Your task to perform on an android device: see tabs open on other devices in the chrome app Image 0: 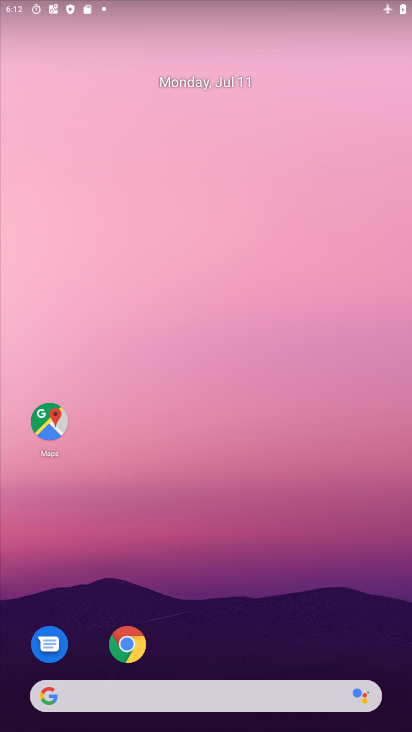
Step 0: drag from (274, 661) to (292, 140)
Your task to perform on an android device: see tabs open on other devices in the chrome app Image 1: 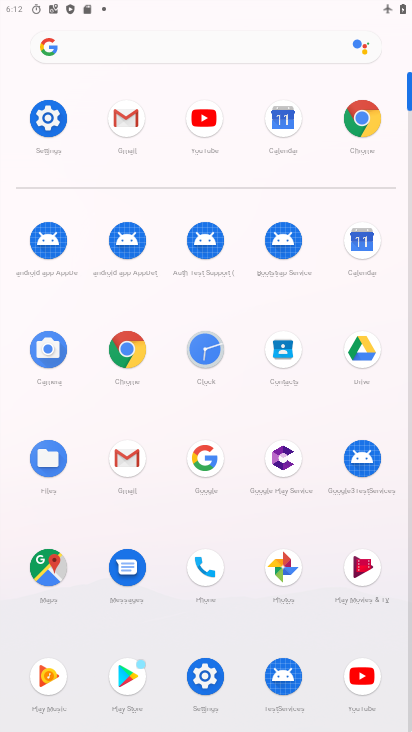
Step 1: click (139, 347)
Your task to perform on an android device: see tabs open on other devices in the chrome app Image 2: 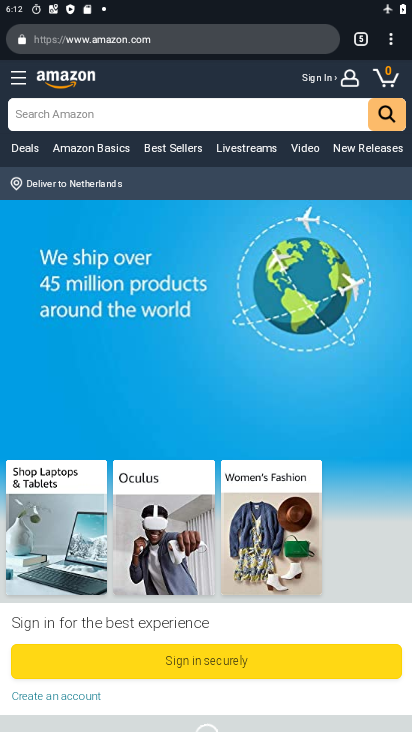
Step 2: task complete